Your task to perform on an android device: Search for pizza restaurants on Maps Image 0: 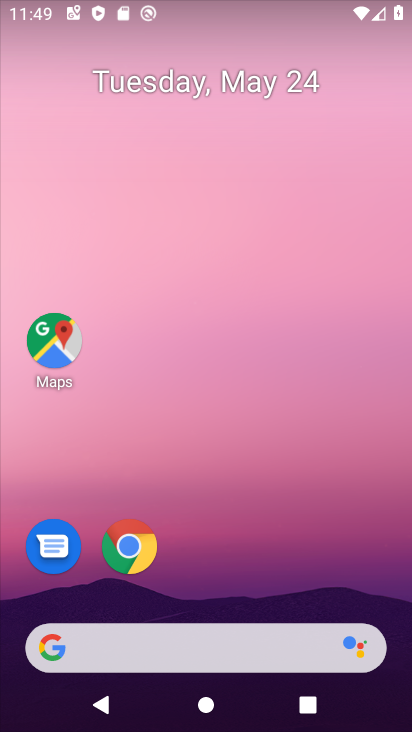
Step 0: click (51, 345)
Your task to perform on an android device: Search for pizza restaurants on Maps Image 1: 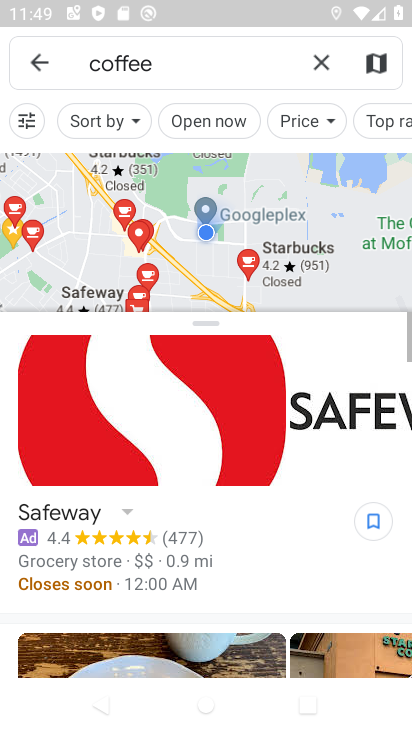
Step 1: click (319, 66)
Your task to perform on an android device: Search for pizza restaurants on Maps Image 2: 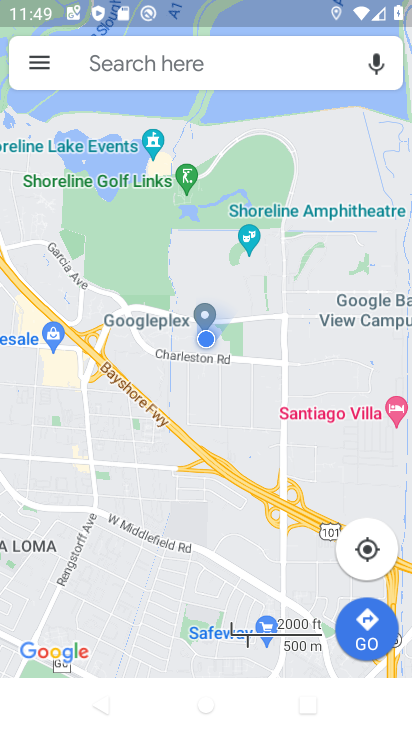
Step 2: click (192, 72)
Your task to perform on an android device: Search for pizza restaurants on Maps Image 3: 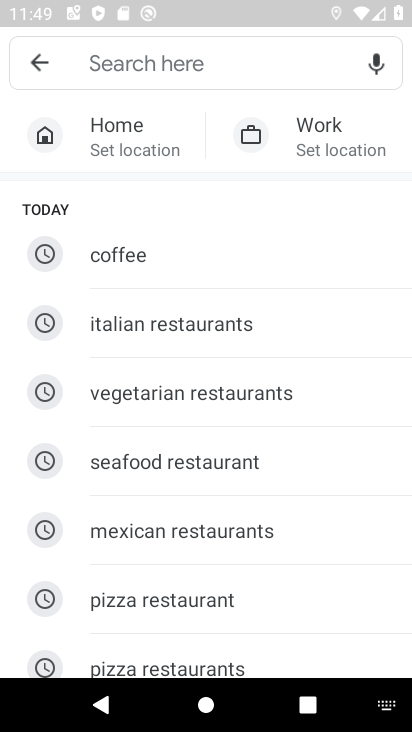
Step 3: click (188, 603)
Your task to perform on an android device: Search for pizza restaurants on Maps Image 4: 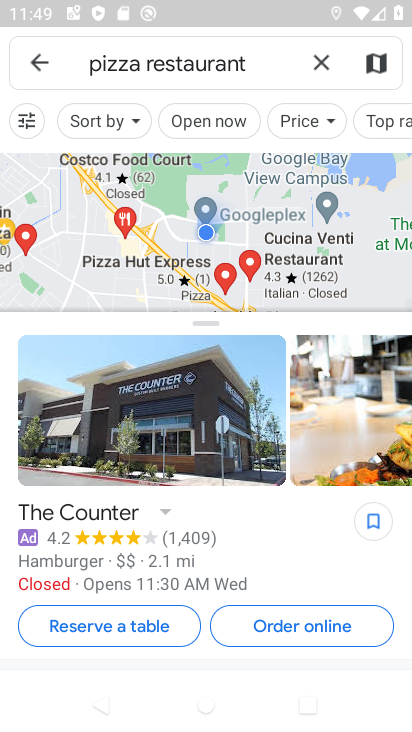
Step 4: task complete